Your task to perform on an android device: Open Google Chrome and open the bookmarks view Image 0: 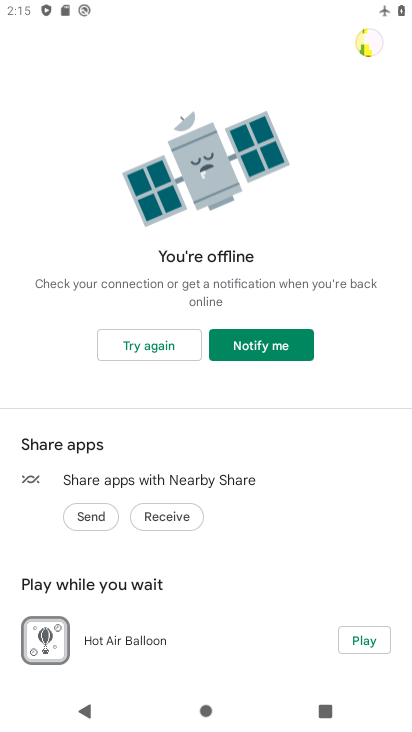
Step 0: press home button
Your task to perform on an android device: Open Google Chrome and open the bookmarks view Image 1: 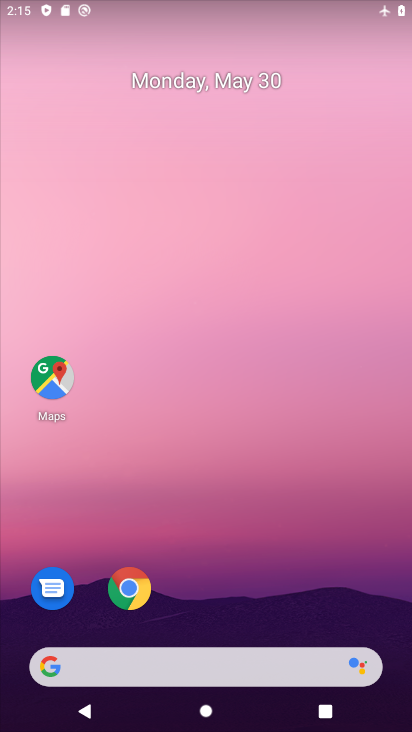
Step 1: click (258, 564)
Your task to perform on an android device: Open Google Chrome and open the bookmarks view Image 2: 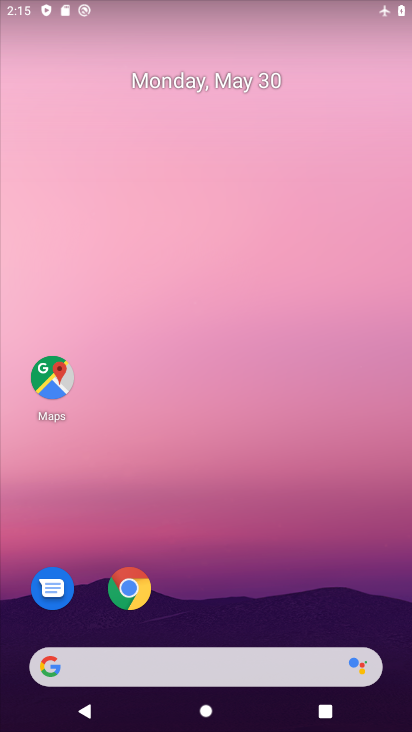
Step 2: click (129, 582)
Your task to perform on an android device: Open Google Chrome and open the bookmarks view Image 3: 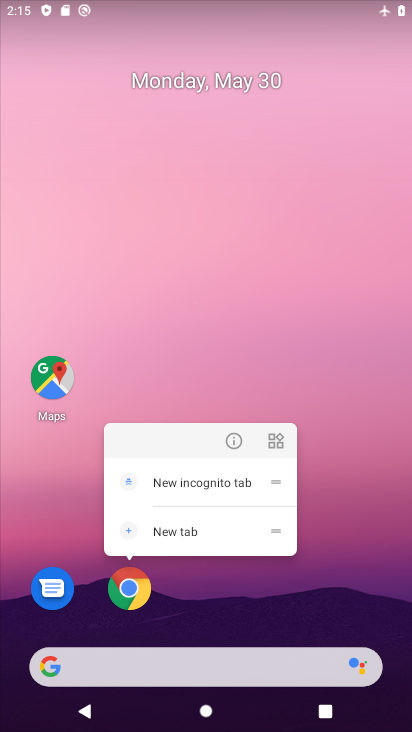
Step 3: click (129, 582)
Your task to perform on an android device: Open Google Chrome and open the bookmarks view Image 4: 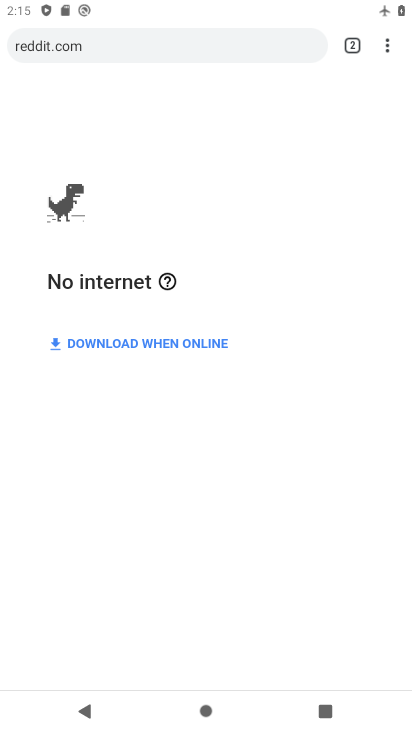
Step 4: click (389, 49)
Your task to perform on an android device: Open Google Chrome and open the bookmarks view Image 5: 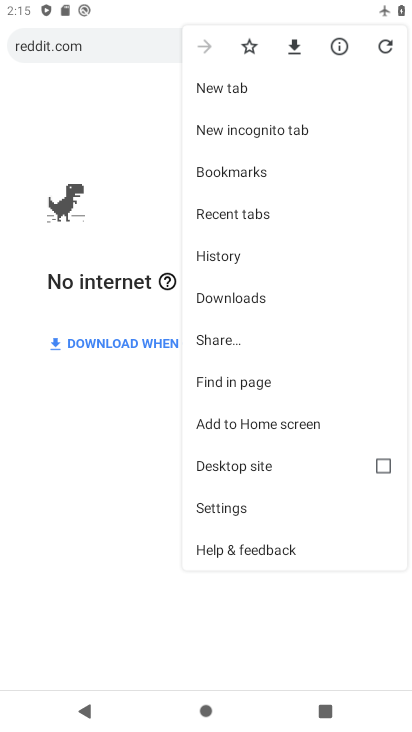
Step 5: click (266, 169)
Your task to perform on an android device: Open Google Chrome and open the bookmarks view Image 6: 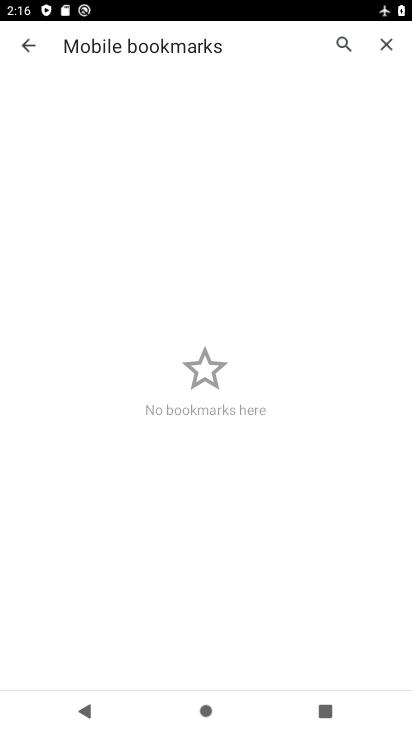
Step 6: task complete